Your task to perform on an android device: open app "Microsoft Excel" (install if not already installed) Image 0: 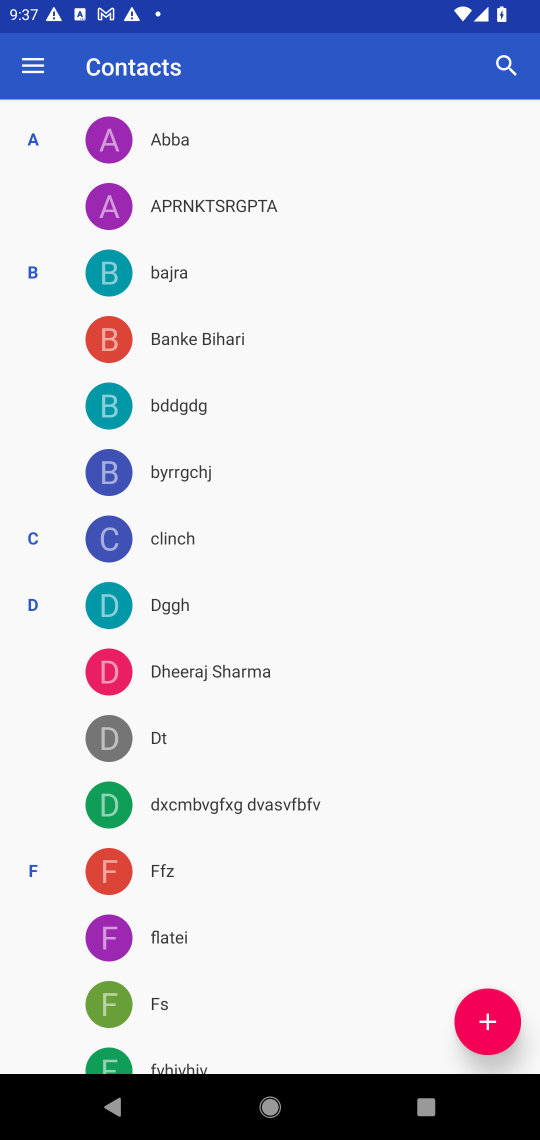
Step 0: press home button
Your task to perform on an android device: open app "Microsoft Excel" (install if not already installed) Image 1: 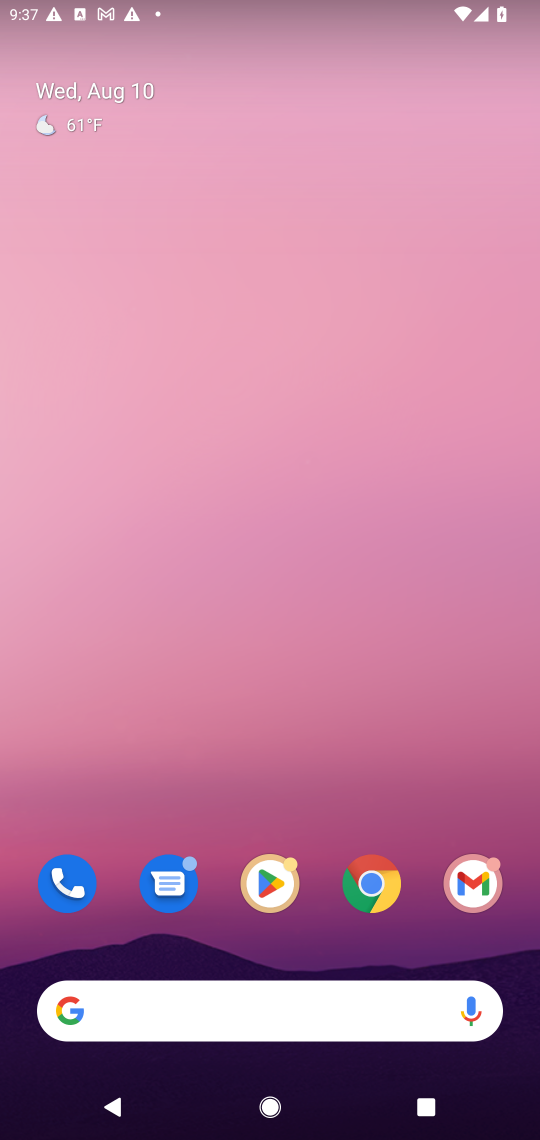
Step 1: click (274, 855)
Your task to perform on an android device: open app "Microsoft Excel" (install if not already installed) Image 2: 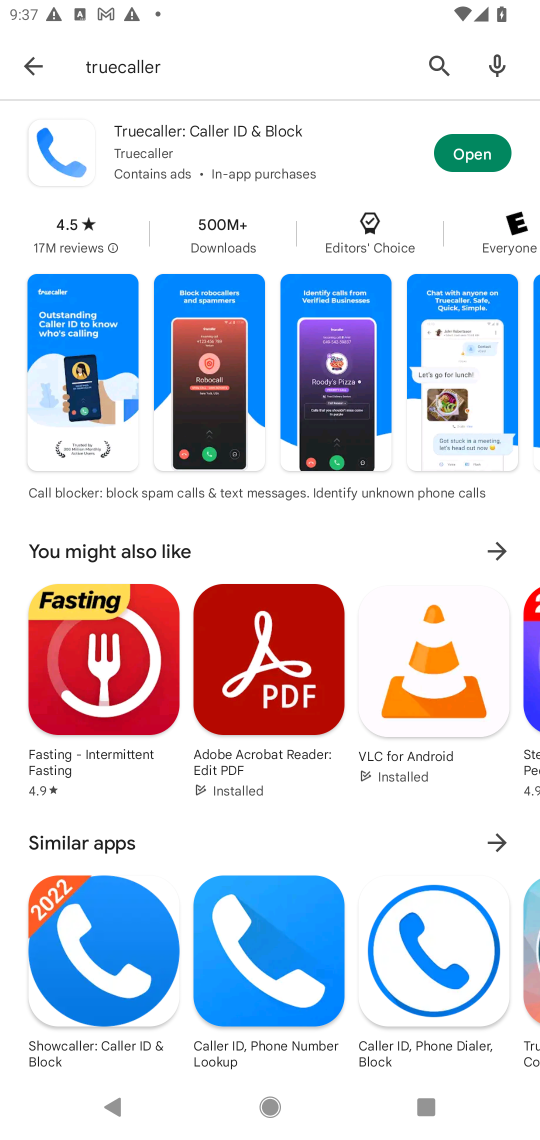
Step 2: click (438, 54)
Your task to perform on an android device: open app "Microsoft Excel" (install if not already installed) Image 3: 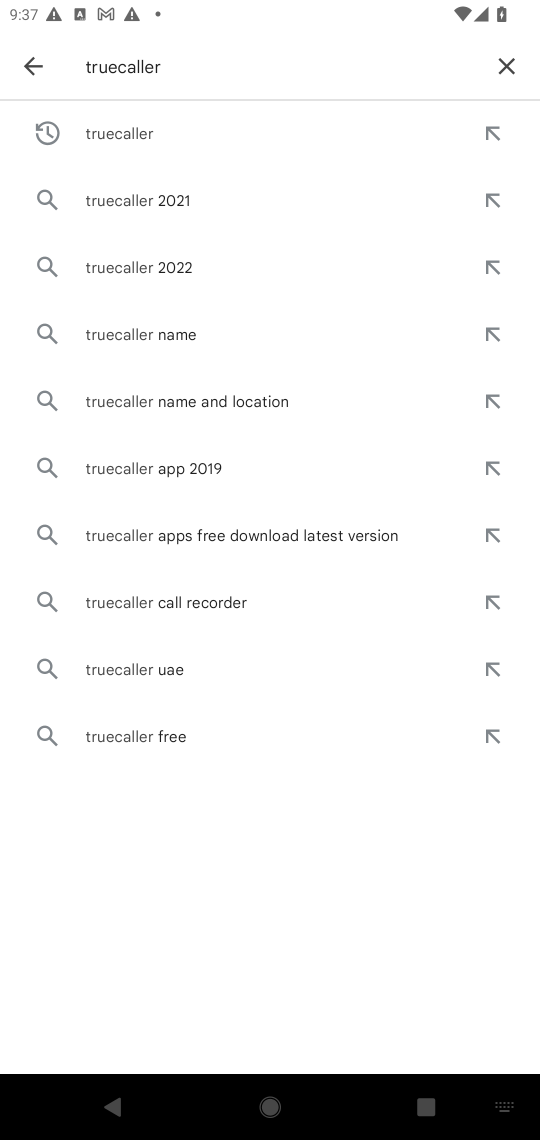
Step 3: click (502, 63)
Your task to perform on an android device: open app "Microsoft Excel" (install if not already installed) Image 4: 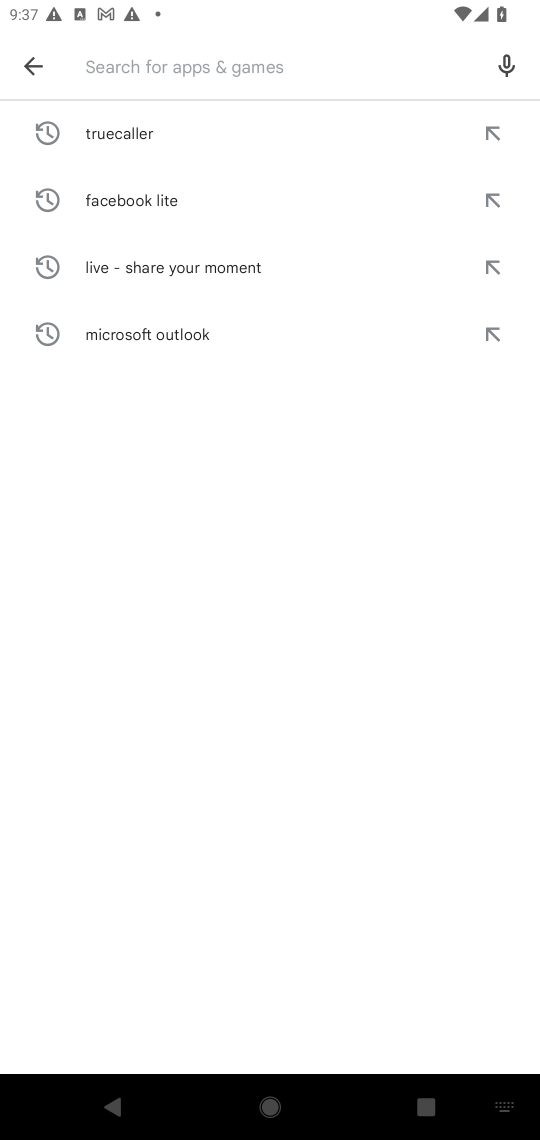
Step 4: type "Microsoft Excel"
Your task to perform on an android device: open app "Microsoft Excel" (install if not already installed) Image 5: 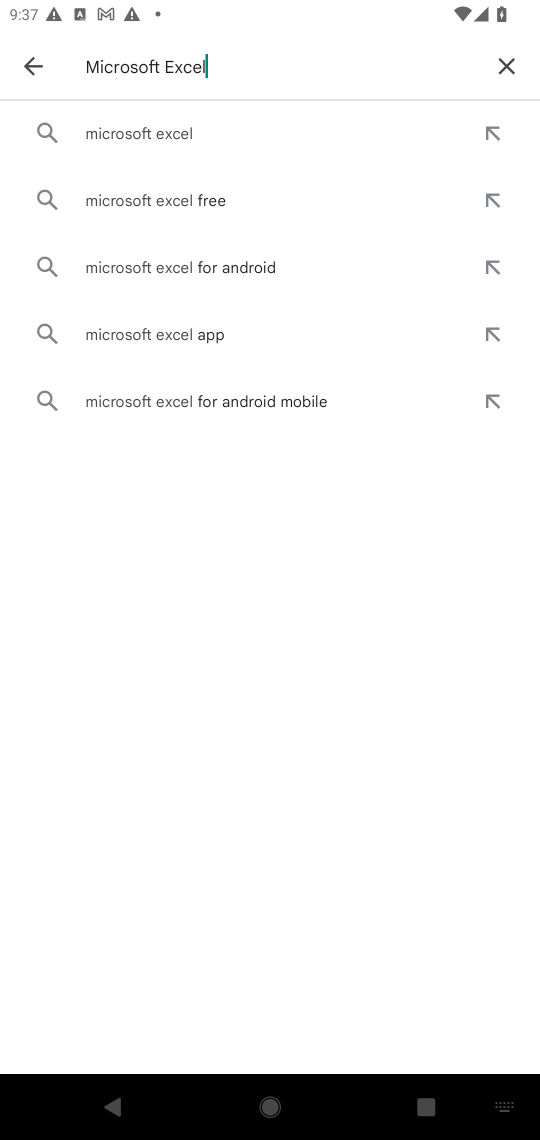
Step 5: click (228, 134)
Your task to perform on an android device: open app "Microsoft Excel" (install if not already installed) Image 6: 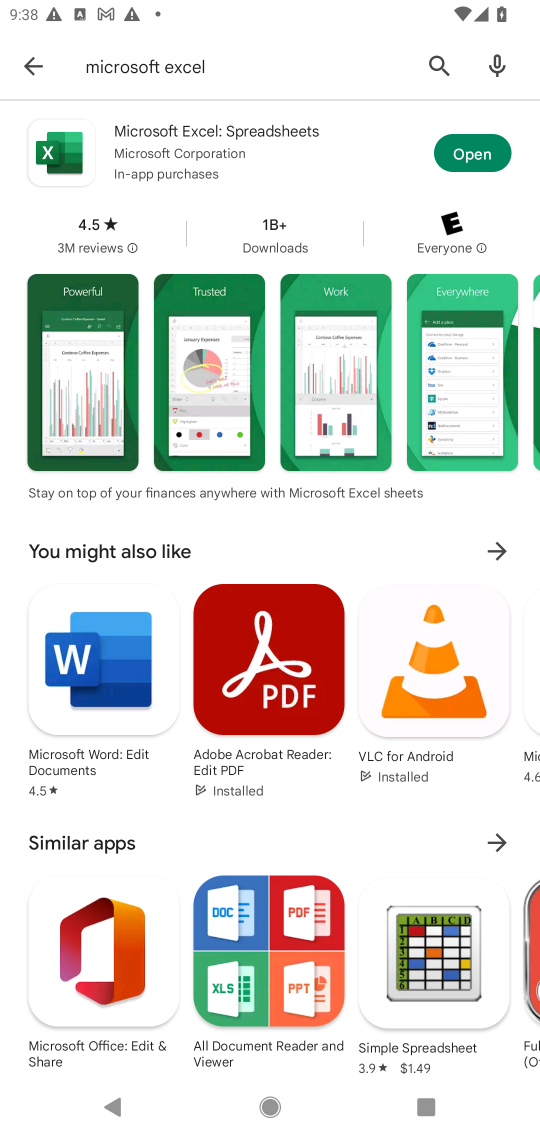
Step 6: click (485, 157)
Your task to perform on an android device: open app "Microsoft Excel" (install if not already installed) Image 7: 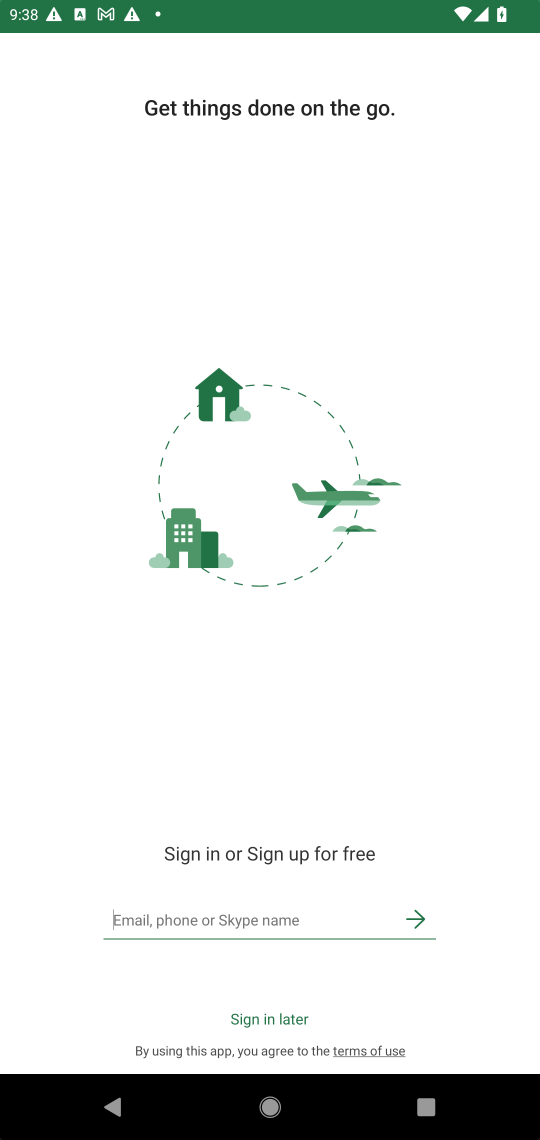
Step 7: task complete